Your task to perform on an android device: Go to Android settings Image 0: 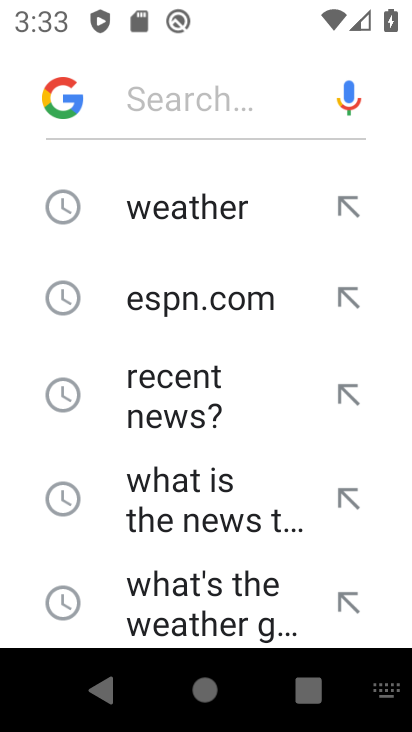
Step 0: press back button
Your task to perform on an android device: Go to Android settings Image 1: 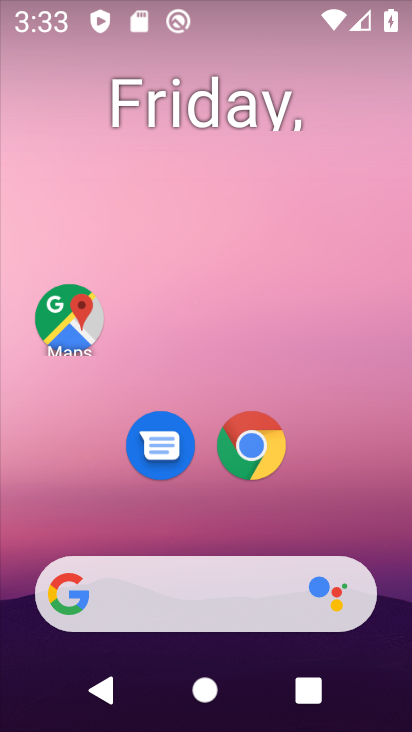
Step 1: drag from (393, 618) to (341, 57)
Your task to perform on an android device: Go to Android settings Image 2: 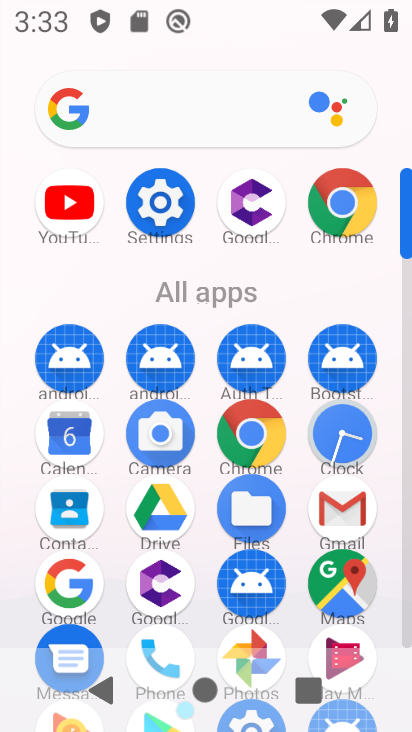
Step 2: drag from (8, 588) to (16, 312)
Your task to perform on an android device: Go to Android settings Image 3: 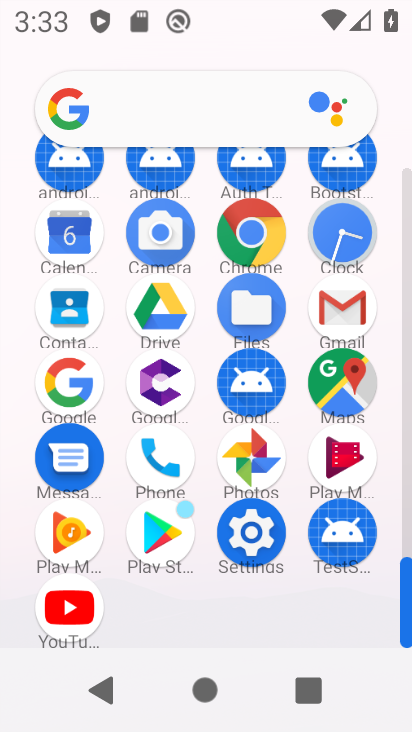
Step 3: click (251, 528)
Your task to perform on an android device: Go to Android settings Image 4: 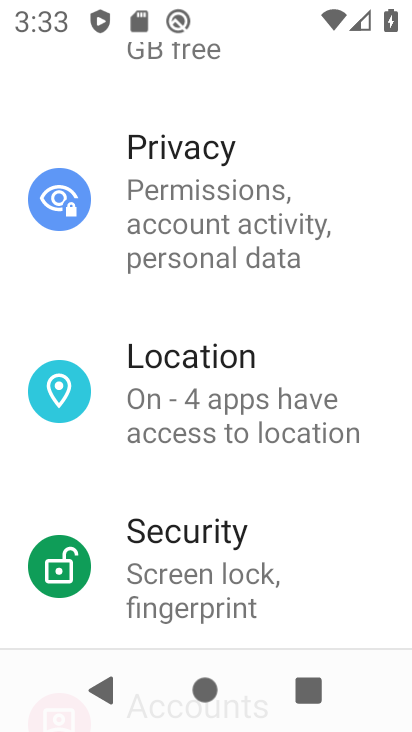
Step 4: task complete